Your task to perform on an android device: Set the phone to "Do not disturb". Image 0: 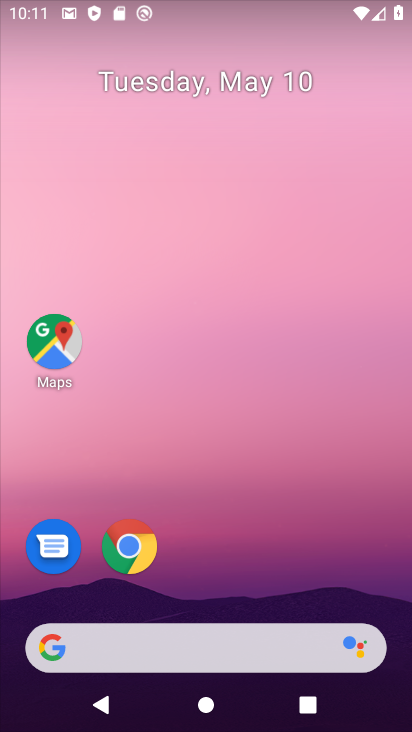
Step 0: drag from (182, 4) to (231, 564)
Your task to perform on an android device: Set the phone to "Do not disturb". Image 1: 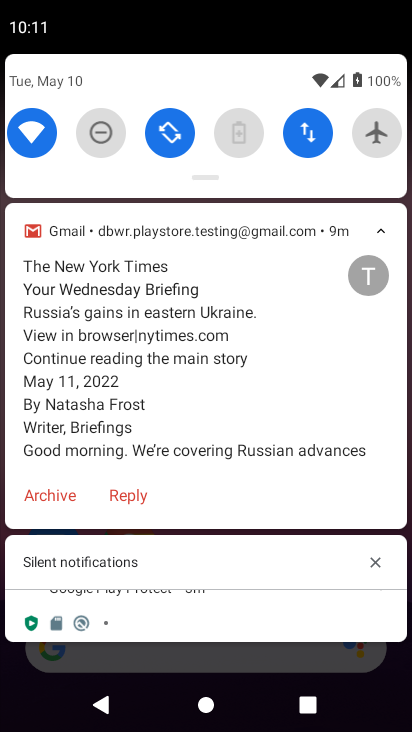
Step 1: click (108, 131)
Your task to perform on an android device: Set the phone to "Do not disturb". Image 2: 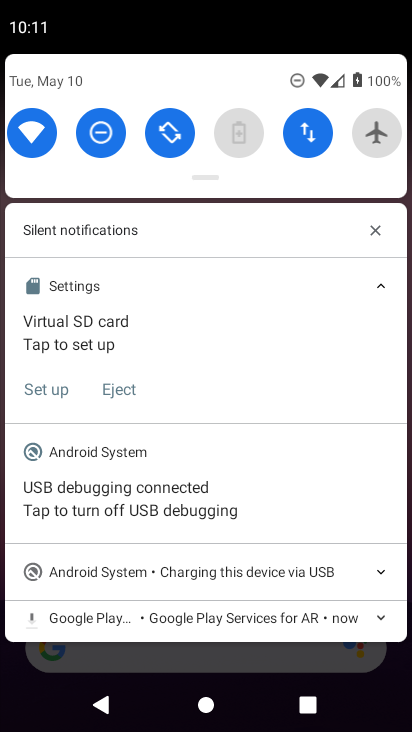
Step 2: task complete